Your task to perform on an android device: Search for Mexican restaurants on Maps Image 0: 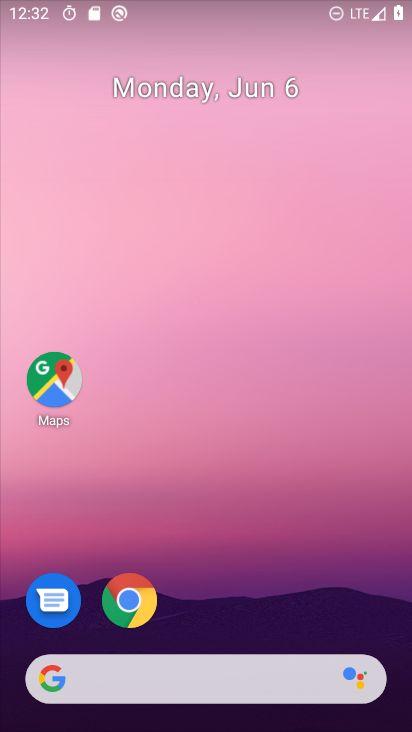
Step 0: click (38, 393)
Your task to perform on an android device: Search for Mexican restaurants on Maps Image 1: 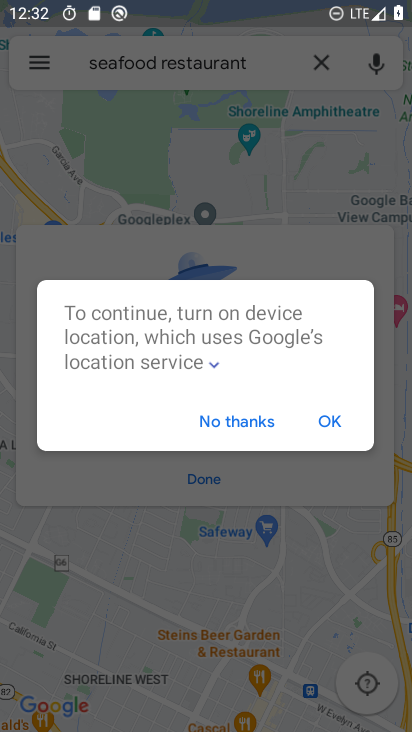
Step 1: click (327, 416)
Your task to perform on an android device: Search for Mexican restaurants on Maps Image 2: 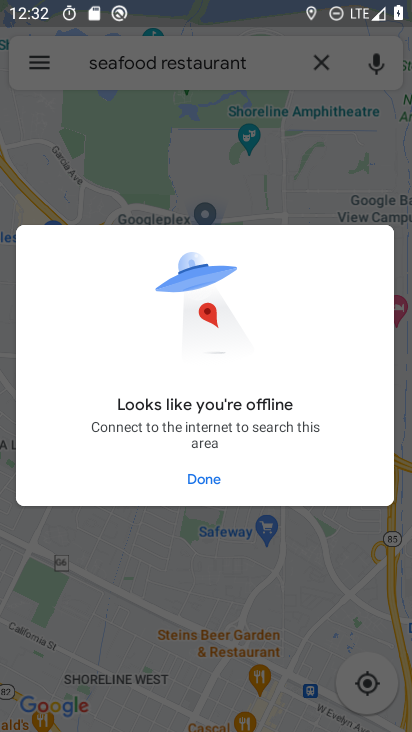
Step 2: task complete